Your task to perform on an android device: Search for Italian restaurants on Maps Image 0: 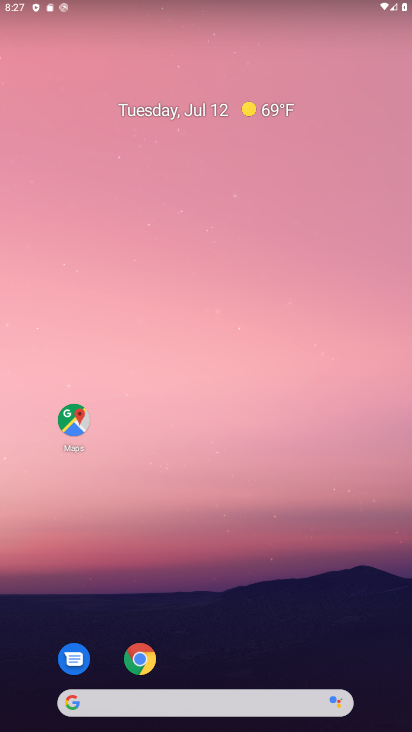
Step 0: drag from (209, 728) to (180, 257)
Your task to perform on an android device: Search for Italian restaurants on Maps Image 1: 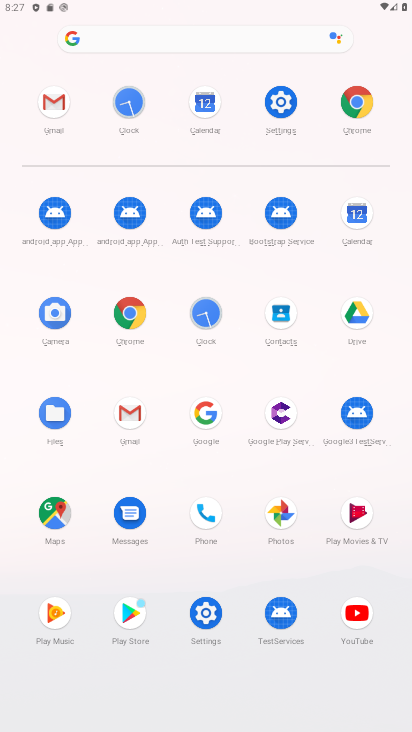
Step 1: click (53, 512)
Your task to perform on an android device: Search for Italian restaurants on Maps Image 2: 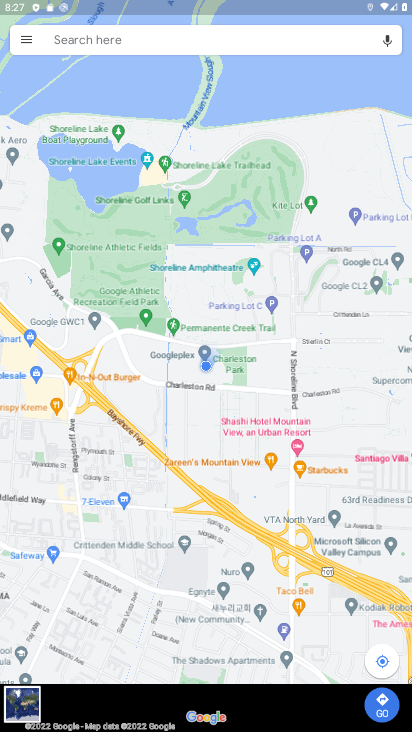
Step 2: click (167, 43)
Your task to perform on an android device: Search for Italian restaurants on Maps Image 3: 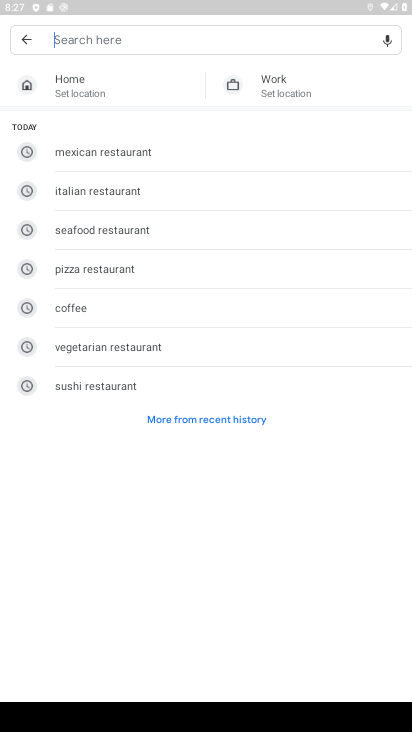
Step 3: type "Italian restaurants"
Your task to perform on an android device: Search for Italian restaurants on Maps Image 4: 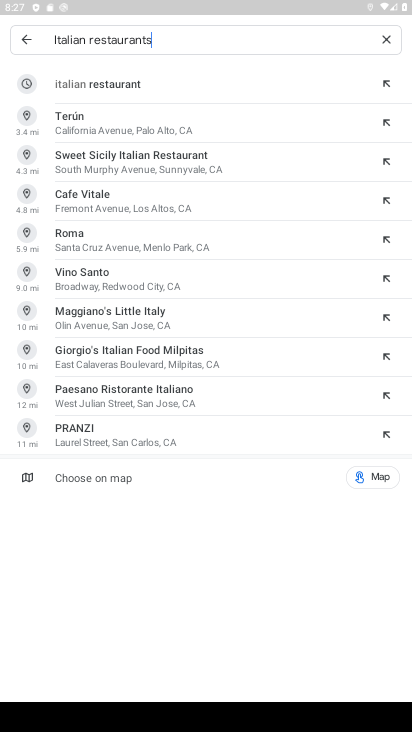
Step 4: click (110, 89)
Your task to perform on an android device: Search for Italian restaurants on Maps Image 5: 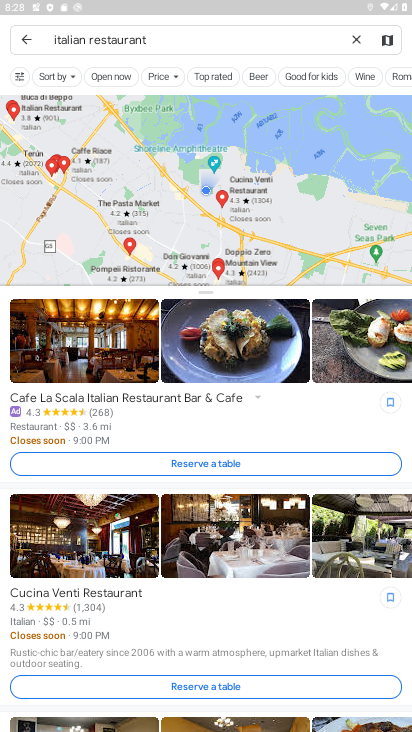
Step 5: task complete